Your task to perform on an android device: Go to wifi settings Image 0: 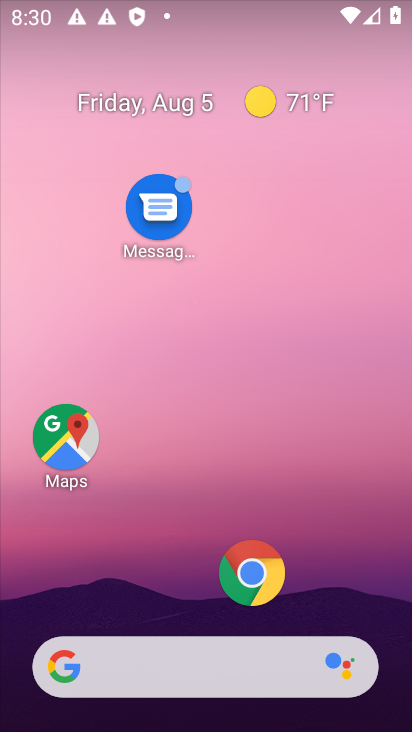
Step 0: press home button
Your task to perform on an android device: Go to wifi settings Image 1: 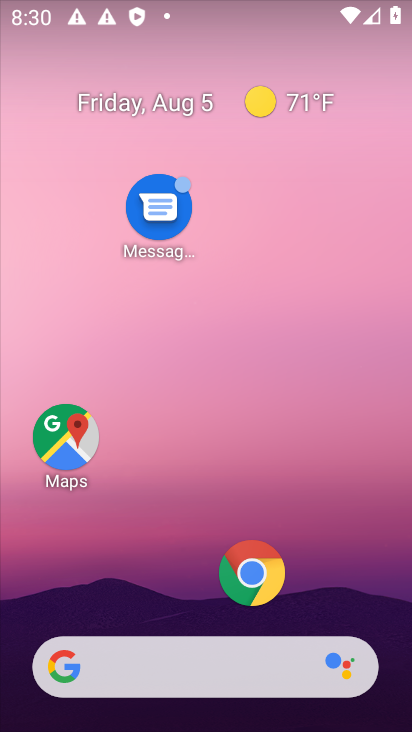
Step 1: drag from (192, 607) to (254, 80)
Your task to perform on an android device: Go to wifi settings Image 2: 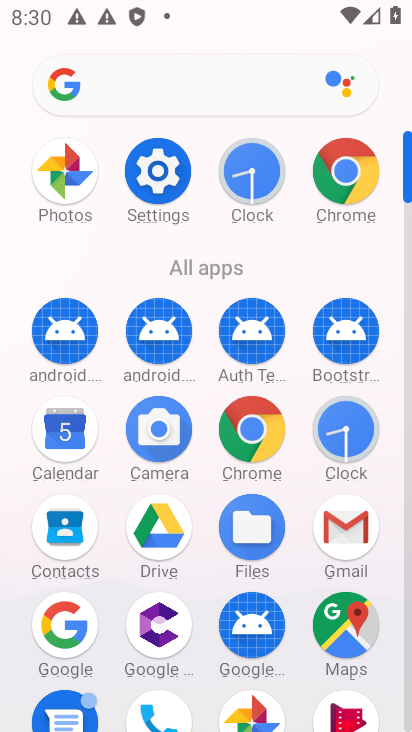
Step 2: click (153, 165)
Your task to perform on an android device: Go to wifi settings Image 3: 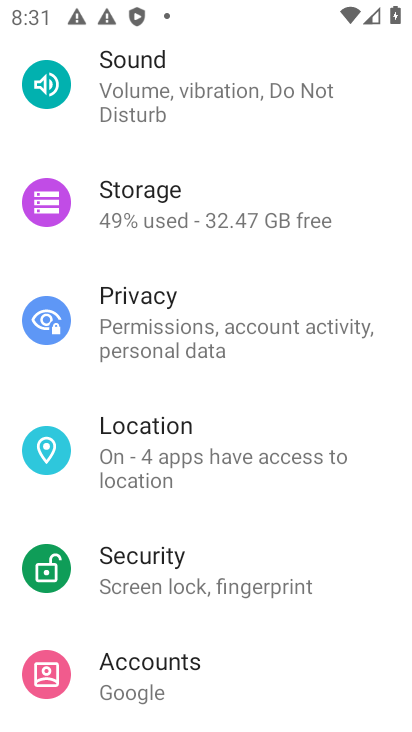
Step 3: drag from (185, 136) to (220, 511)
Your task to perform on an android device: Go to wifi settings Image 4: 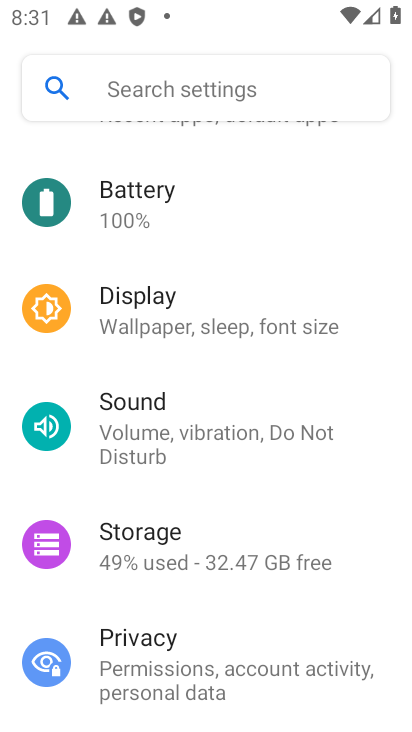
Step 4: drag from (192, 188) to (177, 616)
Your task to perform on an android device: Go to wifi settings Image 5: 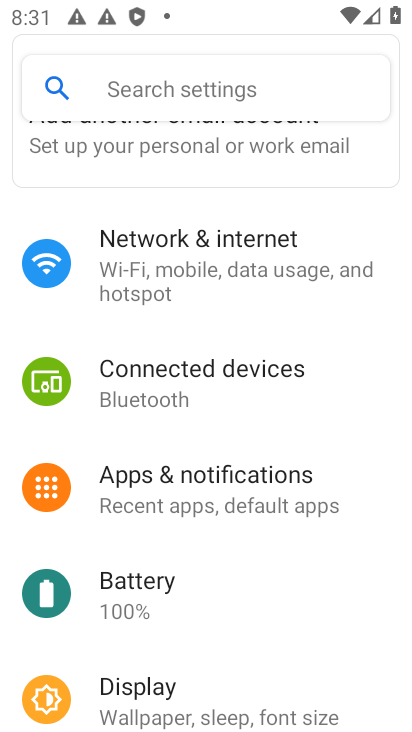
Step 5: click (211, 266)
Your task to perform on an android device: Go to wifi settings Image 6: 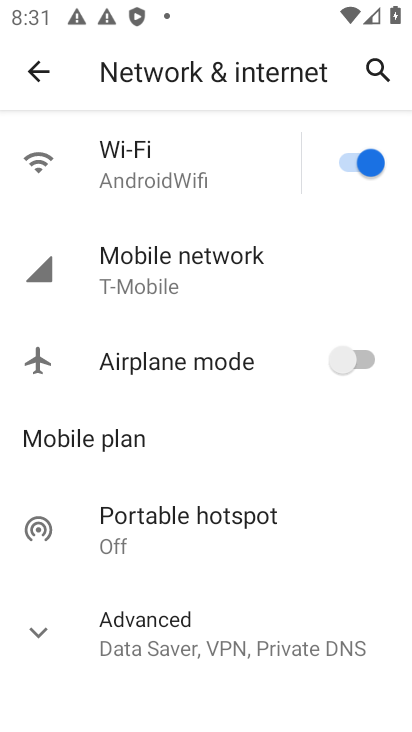
Step 6: click (189, 160)
Your task to perform on an android device: Go to wifi settings Image 7: 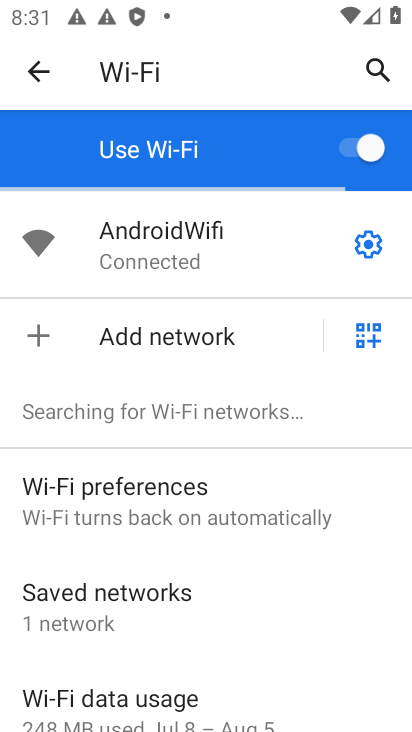
Step 7: task complete